Your task to perform on an android device: open app "Microsoft Outlook" (install if not already installed) Image 0: 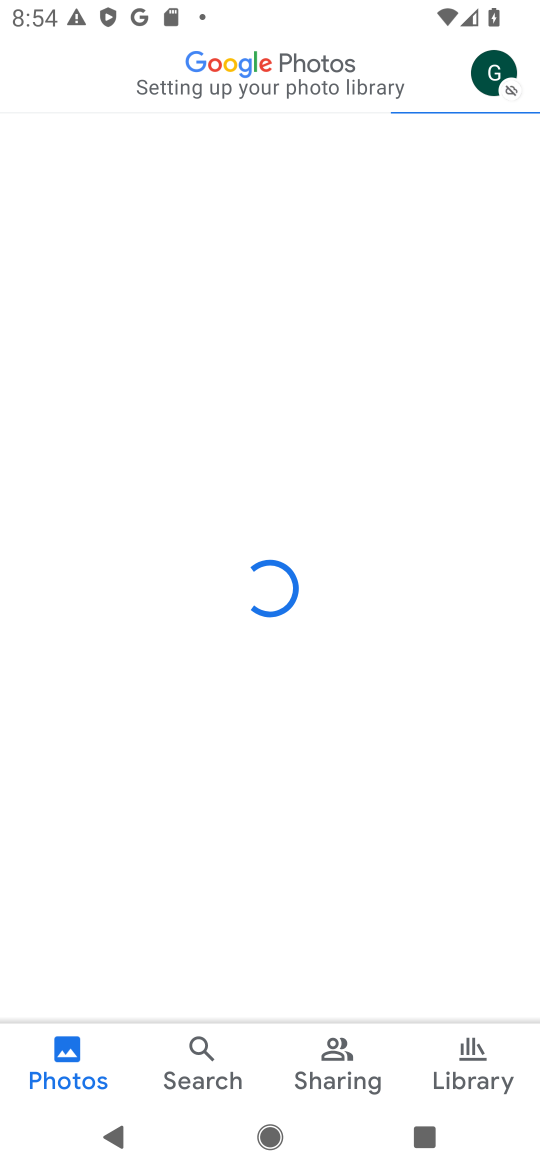
Step 0: press home button
Your task to perform on an android device: open app "Microsoft Outlook" (install if not already installed) Image 1: 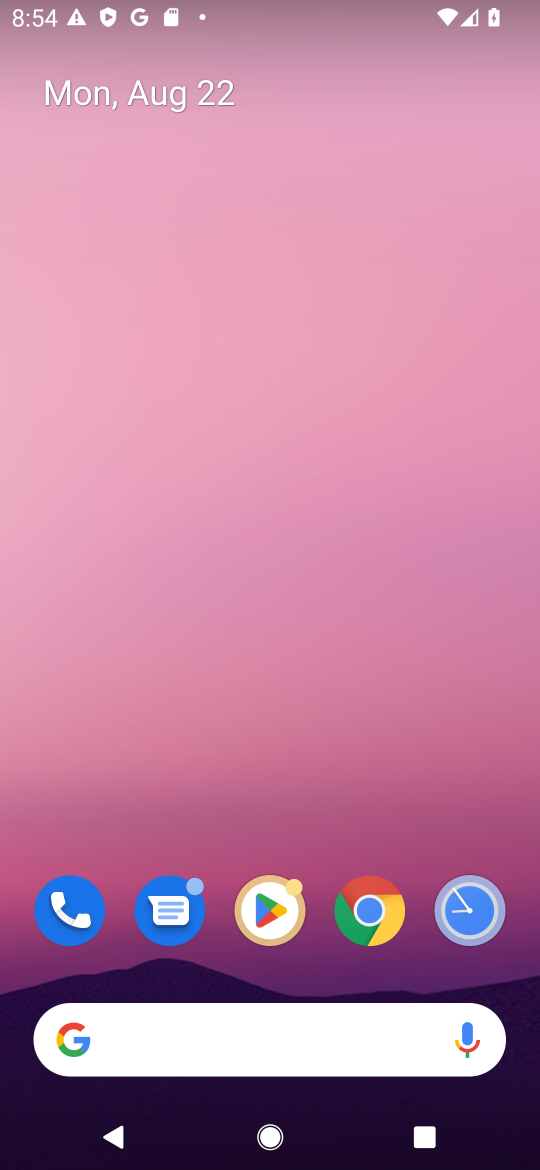
Step 1: click (269, 895)
Your task to perform on an android device: open app "Microsoft Outlook" (install if not already installed) Image 2: 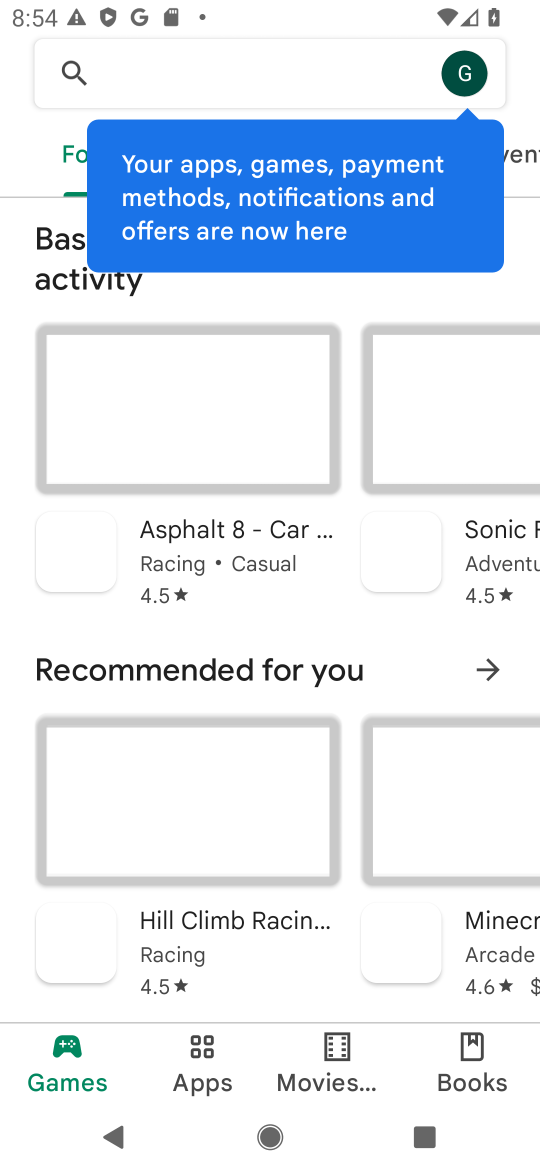
Step 2: click (76, 63)
Your task to perform on an android device: open app "Microsoft Outlook" (install if not already installed) Image 3: 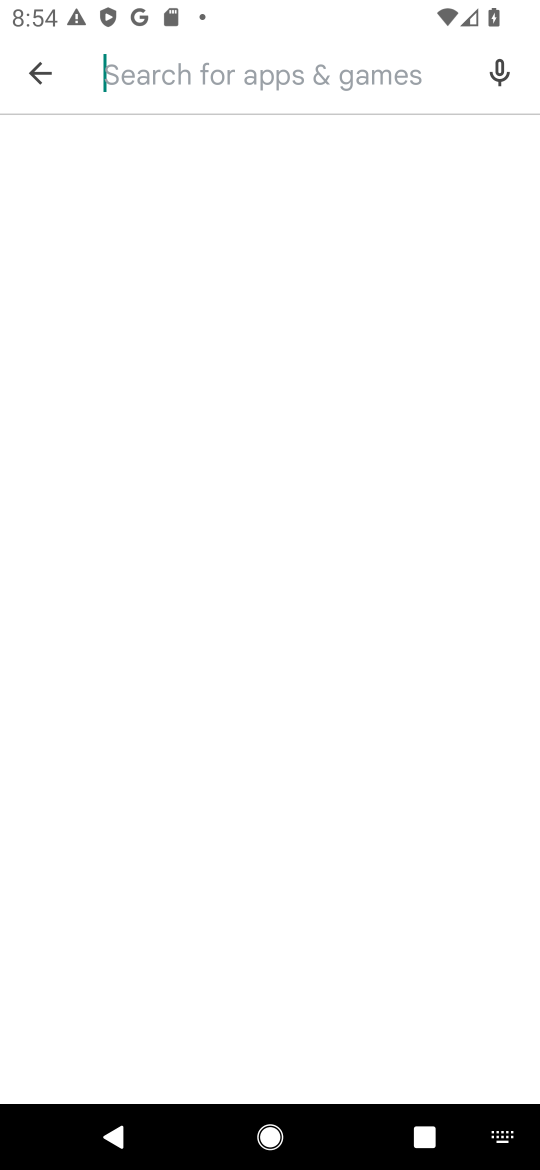
Step 3: click (189, 73)
Your task to perform on an android device: open app "Microsoft Outlook" (install if not already installed) Image 4: 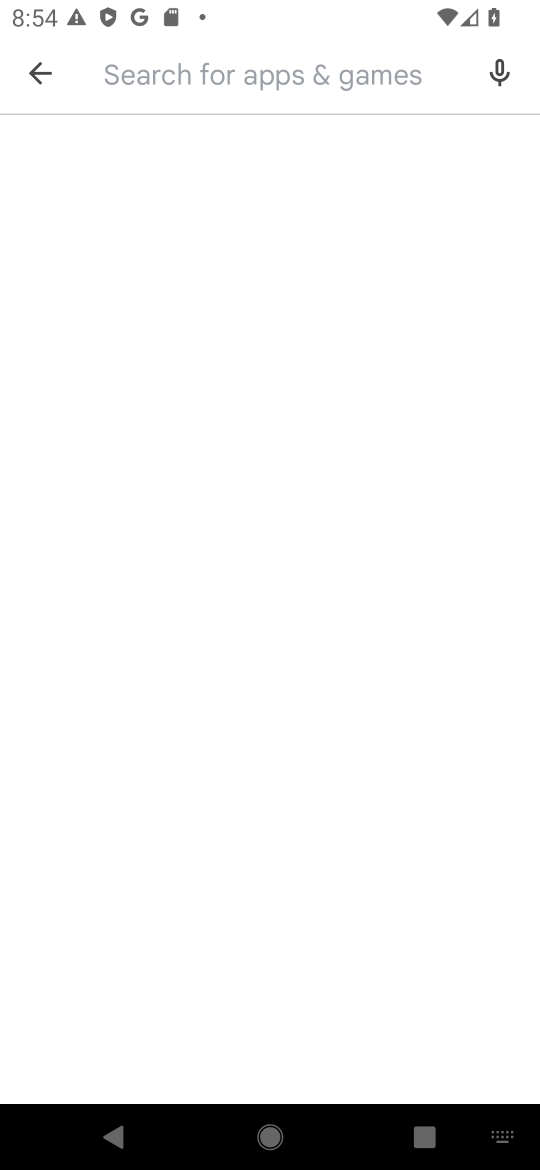
Step 4: type "Microsoft Outlook"
Your task to perform on an android device: open app "Microsoft Outlook" (install if not already installed) Image 5: 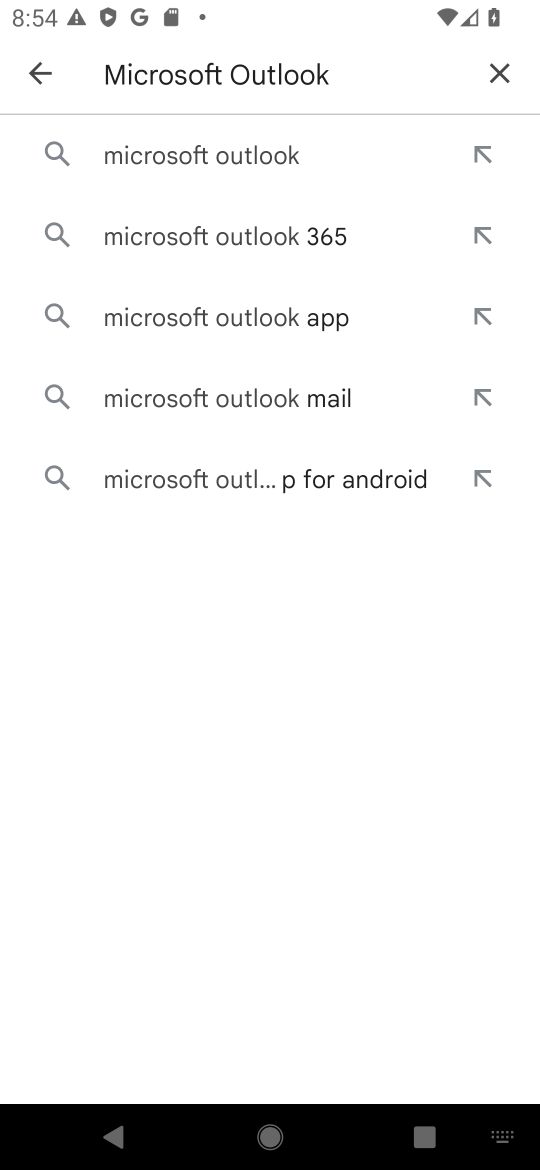
Step 5: click (229, 169)
Your task to perform on an android device: open app "Microsoft Outlook" (install if not already installed) Image 6: 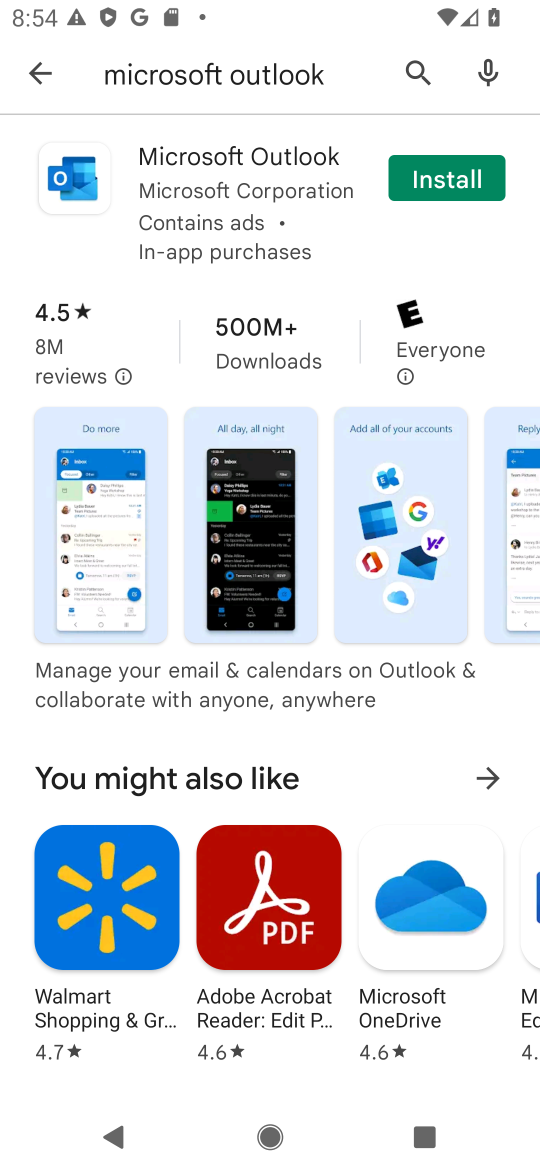
Step 6: click (431, 183)
Your task to perform on an android device: open app "Microsoft Outlook" (install if not already installed) Image 7: 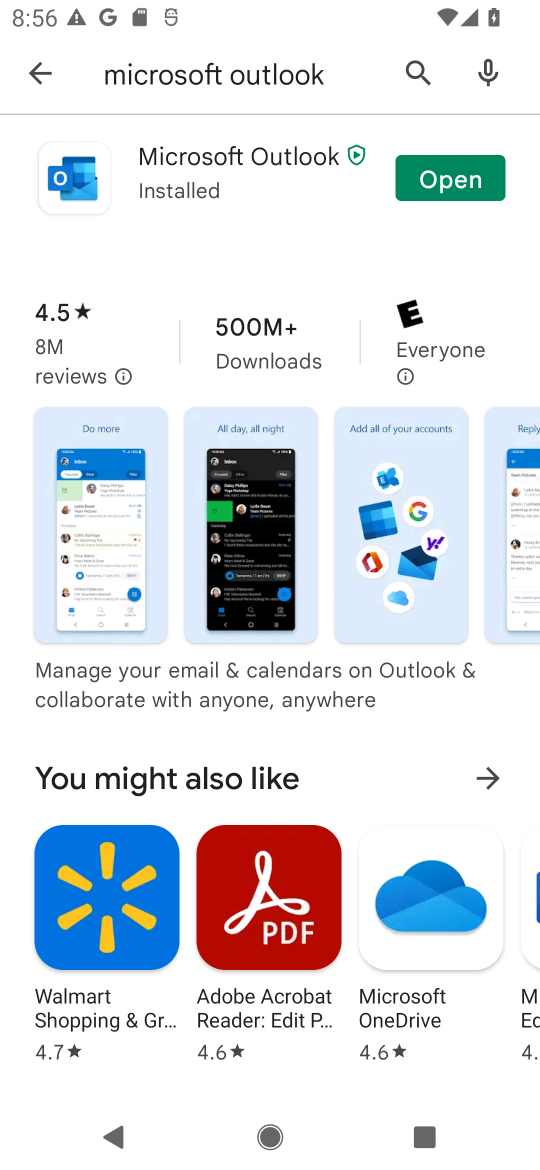
Step 7: click (462, 153)
Your task to perform on an android device: open app "Microsoft Outlook" (install if not already installed) Image 8: 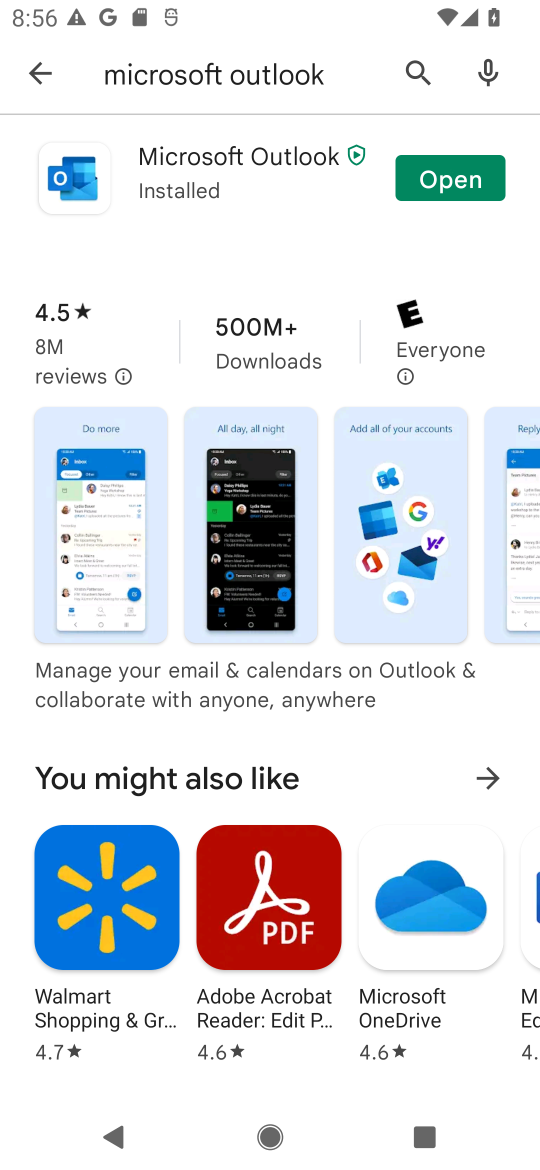
Step 8: click (447, 172)
Your task to perform on an android device: open app "Microsoft Outlook" (install if not already installed) Image 9: 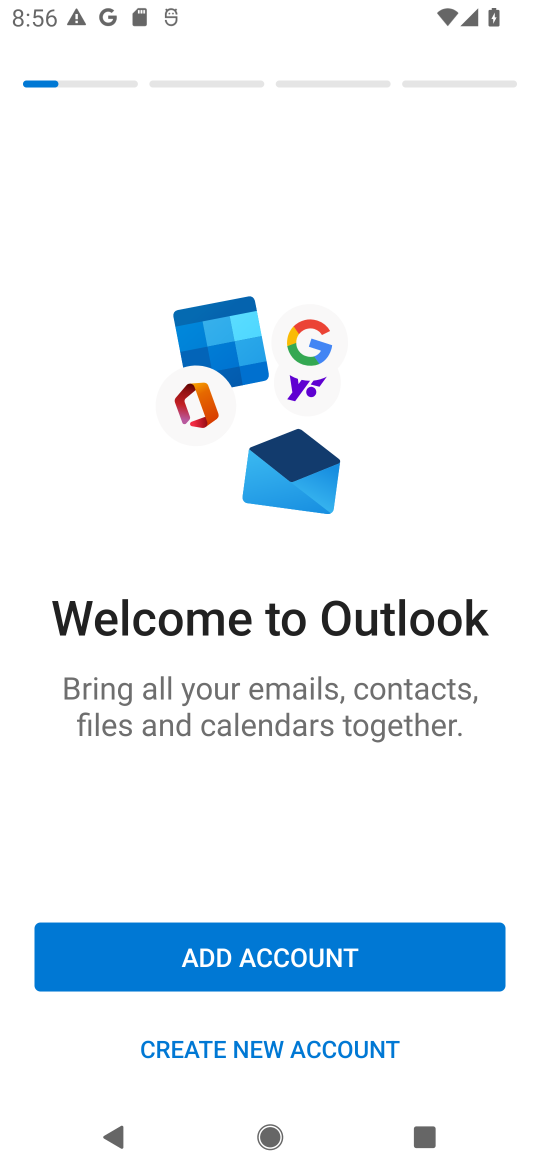
Step 9: task complete